Your task to perform on an android device: Open Chrome and go to the settings page Image 0: 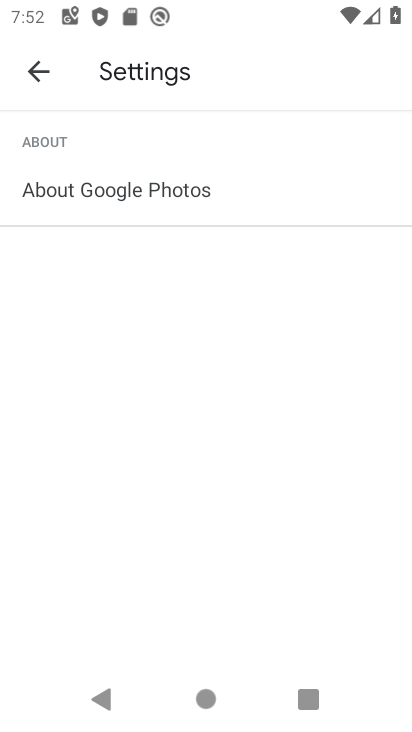
Step 0: click (25, 53)
Your task to perform on an android device: Open Chrome and go to the settings page Image 1: 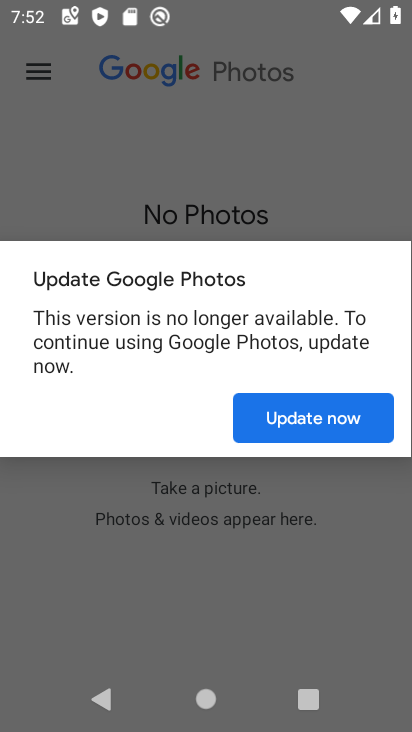
Step 1: press home button
Your task to perform on an android device: Open Chrome and go to the settings page Image 2: 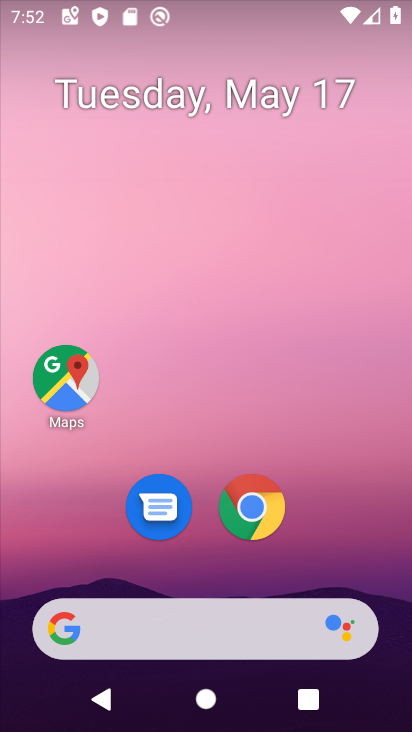
Step 2: drag from (264, 651) to (267, 153)
Your task to perform on an android device: Open Chrome and go to the settings page Image 3: 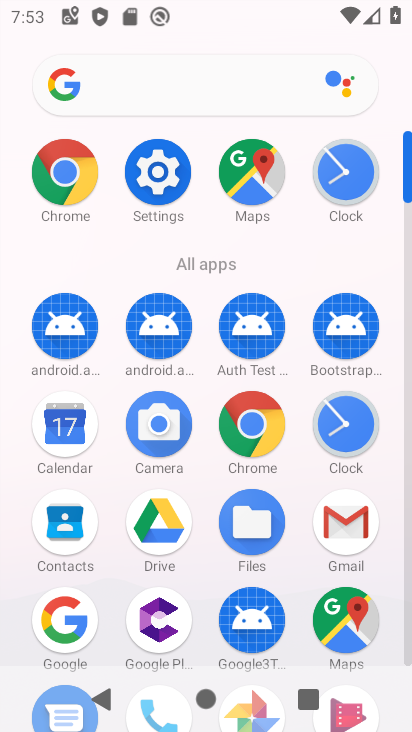
Step 3: click (64, 181)
Your task to perform on an android device: Open Chrome and go to the settings page Image 4: 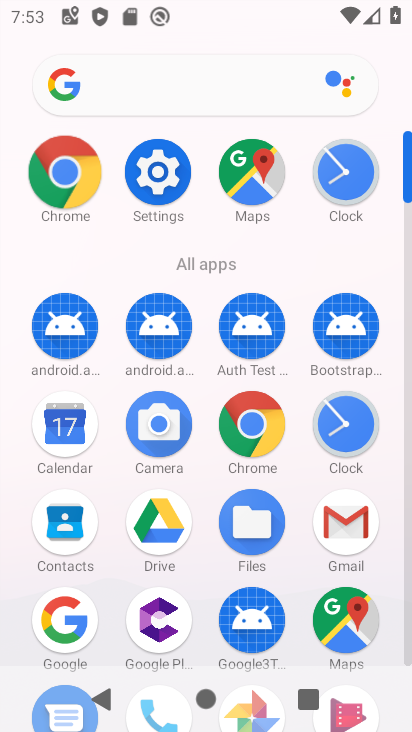
Step 4: click (66, 178)
Your task to perform on an android device: Open Chrome and go to the settings page Image 5: 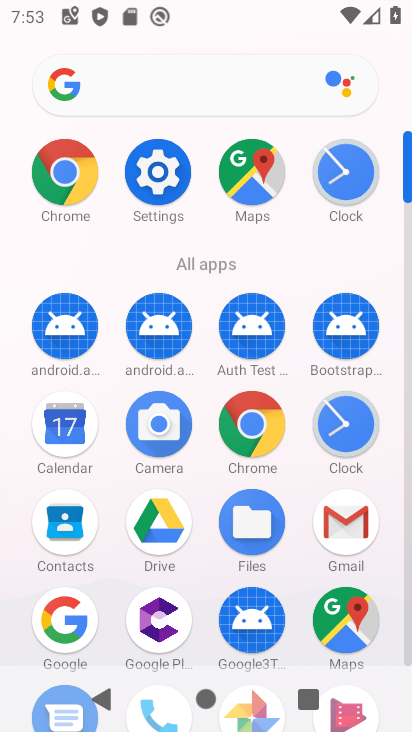
Step 5: click (58, 180)
Your task to perform on an android device: Open Chrome and go to the settings page Image 6: 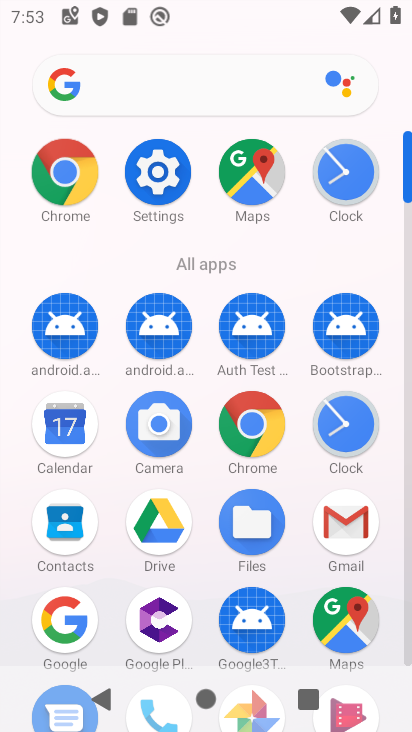
Step 6: click (58, 180)
Your task to perform on an android device: Open Chrome and go to the settings page Image 7: 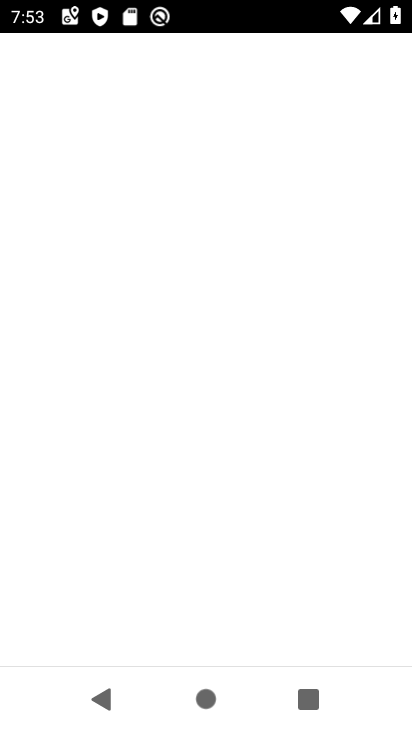
Step 7: click (63, 176)
Your task to perform on an android device: Open Chrome and go to the settings page Image 8: 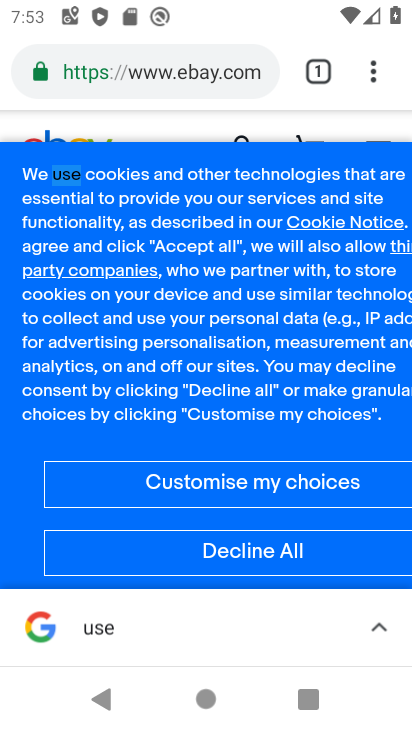
Step 8: click (372, 76)
Your task to perform on an android device: Open Chrome and go to the settings page Image 9: 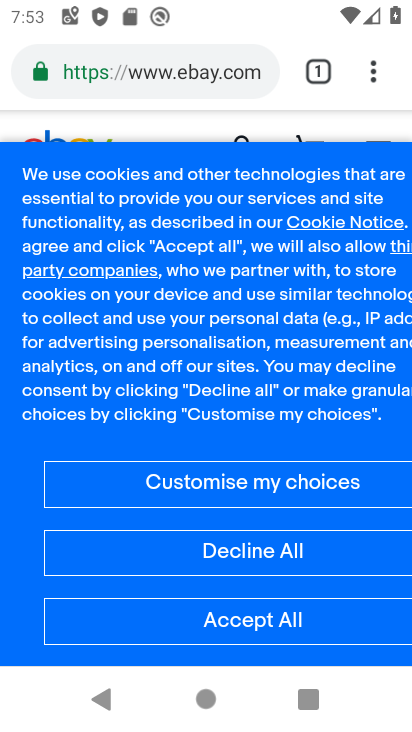
Step 9: click (372, 76)
Your task to perform on an android device: Open Chrome and go to the settings page Image 10: 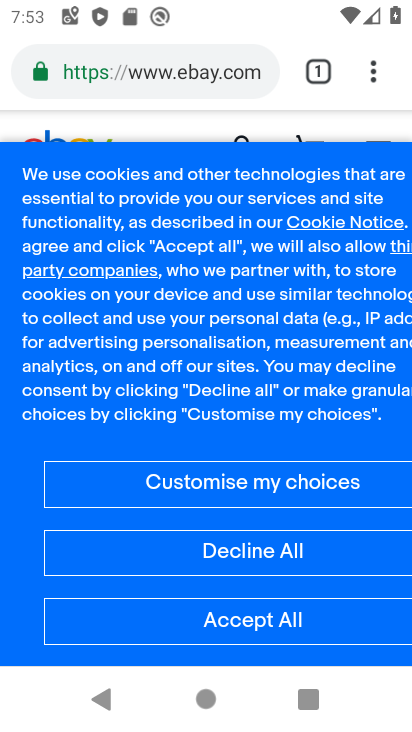
Step 10: drag from (370, 73) to (103, 496)
Your task to perform on an android device: Open Chrome and go to the settings page Image 11: 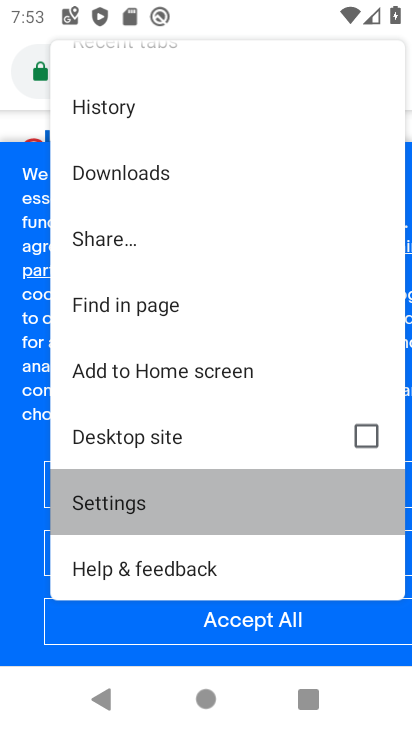
Step 11: click (119, 486)
Your task to perform on an android device: Open Chrome and go to the settings page Image 12: 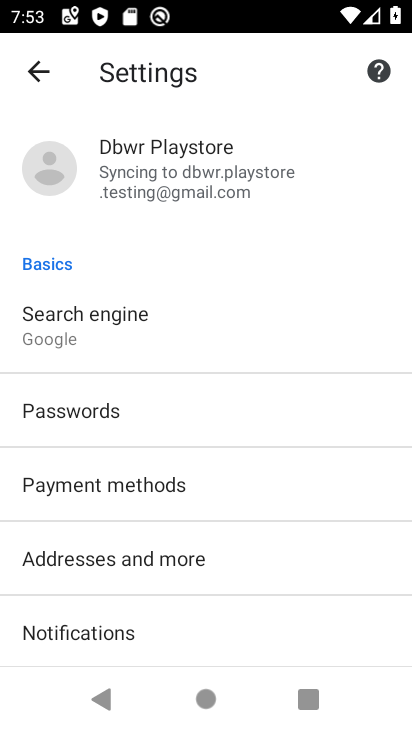
Step 12: drag from (142, 516) to (51, 44)
Your task to perform on an android device: Open Chrome and go to the settings page Image 13: 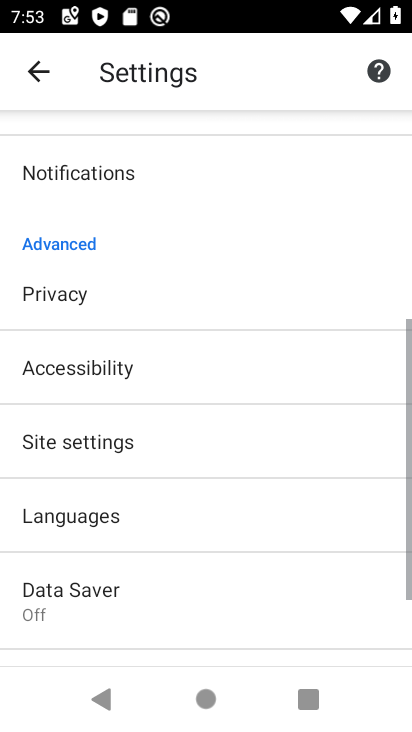
Step 13: drag from (153, 506) to (137, 44)
Your task to perform on an android device: Open Chrome and go to the settings page Image 14: 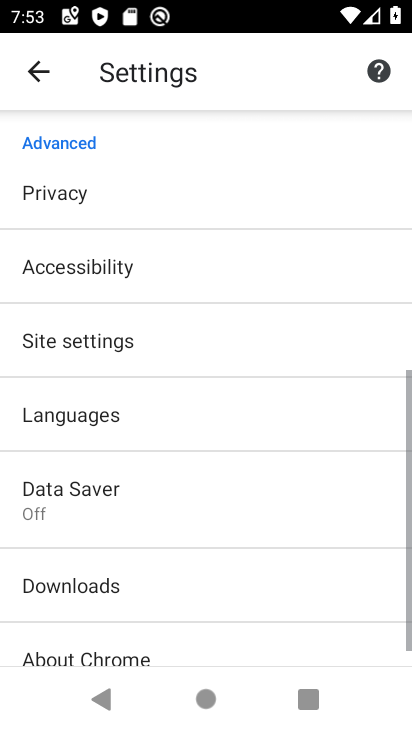
Step 14: drag from (178, 419) to (178, 118)
Your task to perform on an android device: Open Chrome and go to the settings page Image 15: 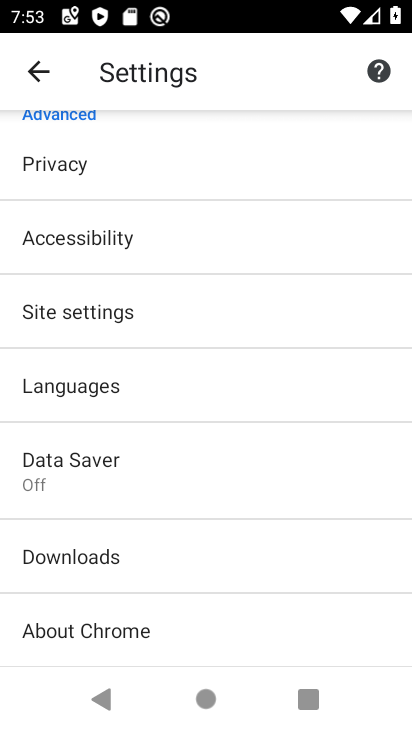
Step 15: drag from (73, 259) to (142, 588)
Your task to perform on an android device: Open Chrome and go to the settings page Image 16: 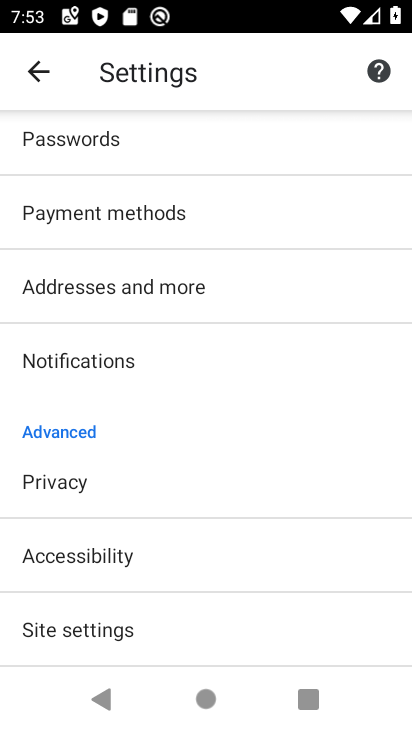
Step 16: click (67, 627)
Your task to perform on an android device: Open Chrome and go to the settings page Image 17: 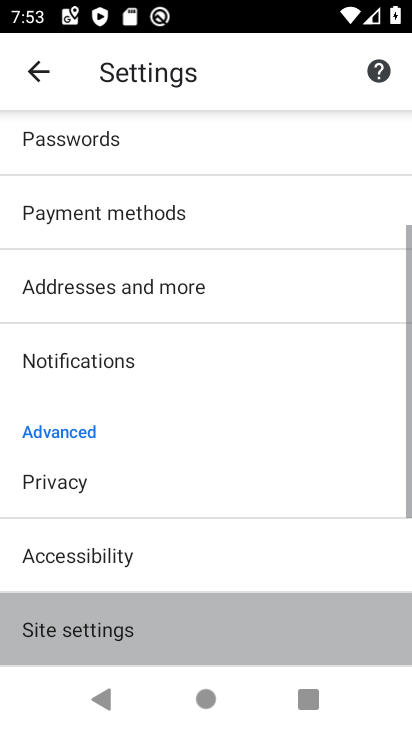
Step 17: click (67, 626)
Your task to perform on an android device: Open Chrome and go to the settings page Image 18: 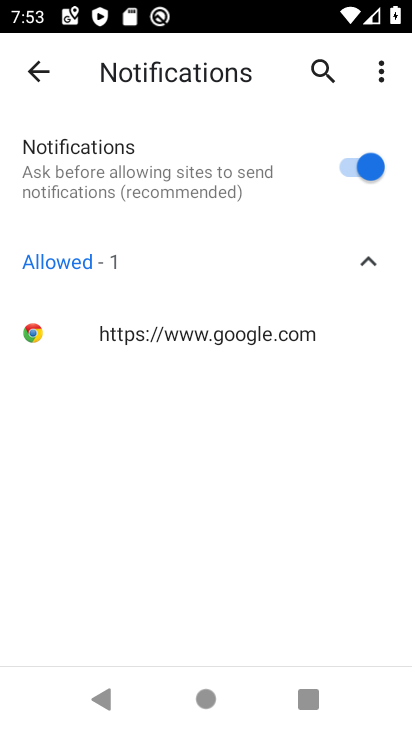
Step 18: click (36, 68)
Your task to perform on an android device: Open Chrome and go to the settings page Image 19: 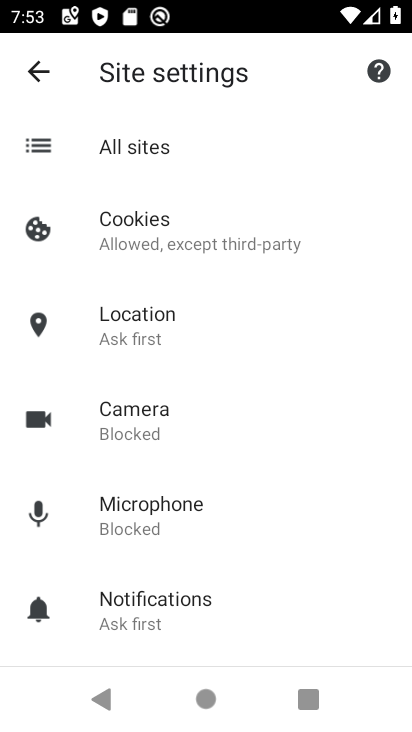
Step 19: task complete